Your task to perform on an android device: add a contact in the contacts app Image 0: 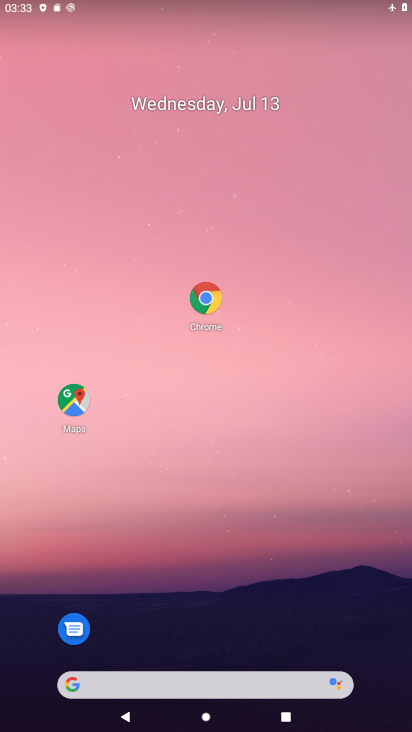
Step 0: drag from (125, 321) to (121, 206)
Your task to perform on an android device: add a contact in the contacts app Image 1: 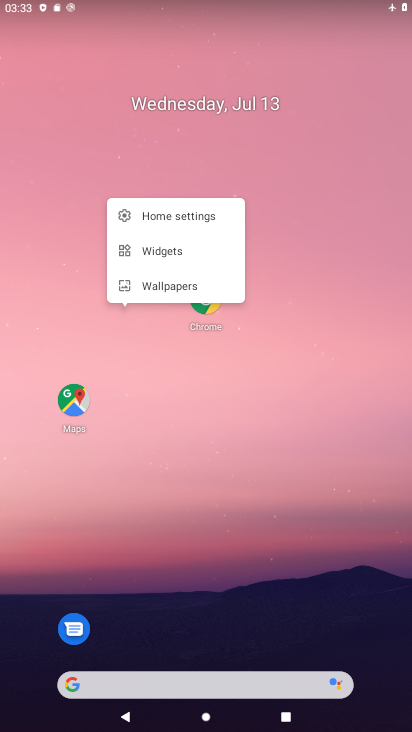
Step 1: click (196, 247)
Your task to perform on an android device: add a contact in the contacts app Image 2: 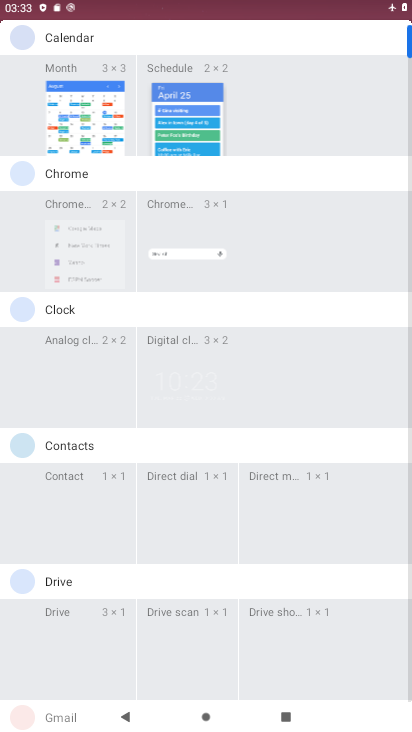
Step 2: drag from (288, 655) to (255, 273)
Your task to perform on an android device: add a contact in the contacts app Image 3: 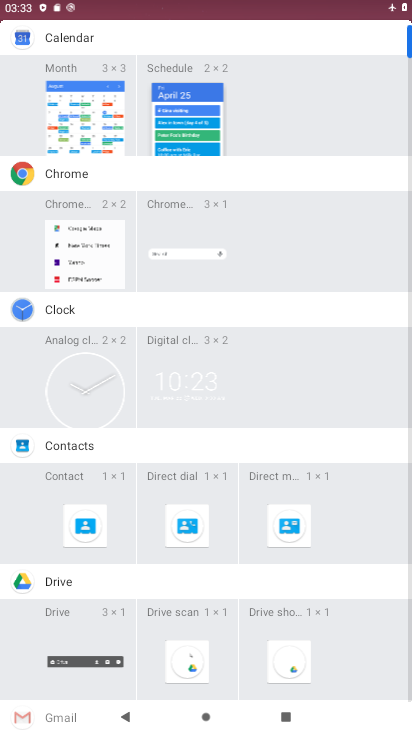
Step 3: press home button
Your task to perform on an android device: add a contact in the contacts app Image 4: 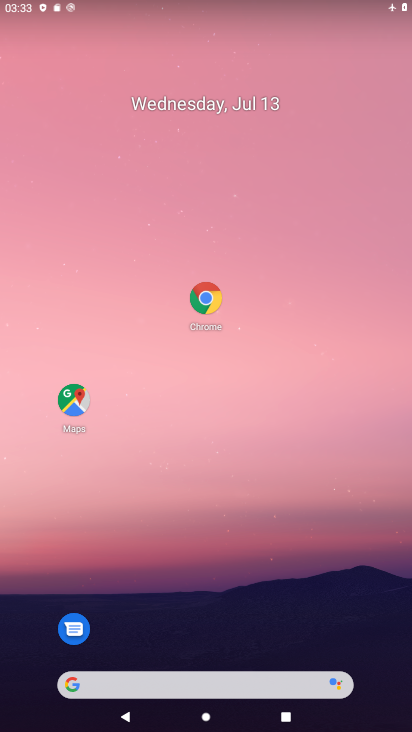
Step 4: drag from (242, 642) to (235, 223)
Your task to perform on an android device: add a contact in the contacts app Image 5: 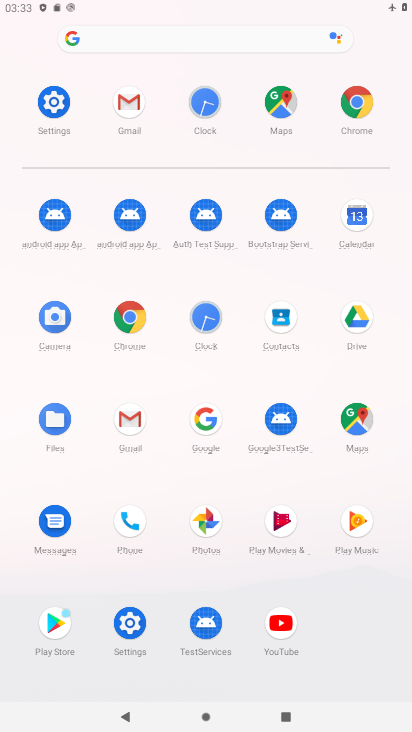
Step 5: click (141, 517)
Your task to perform on an android device: add a contact in the contacts app Image 6: 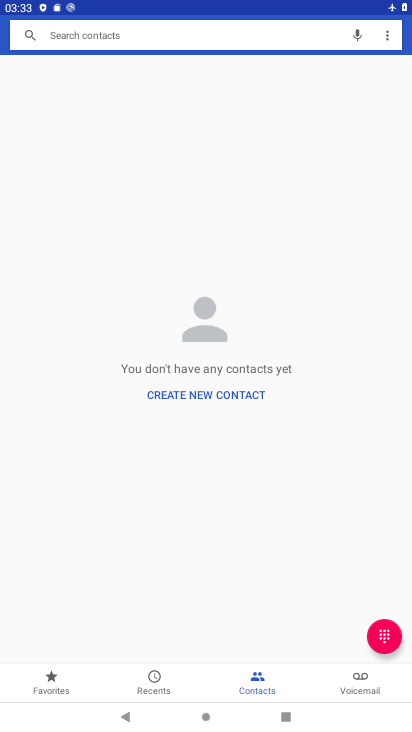
Step 6: click (222, 386)
Your task to perform on an android device: add a contact in the contacts app Image 7: 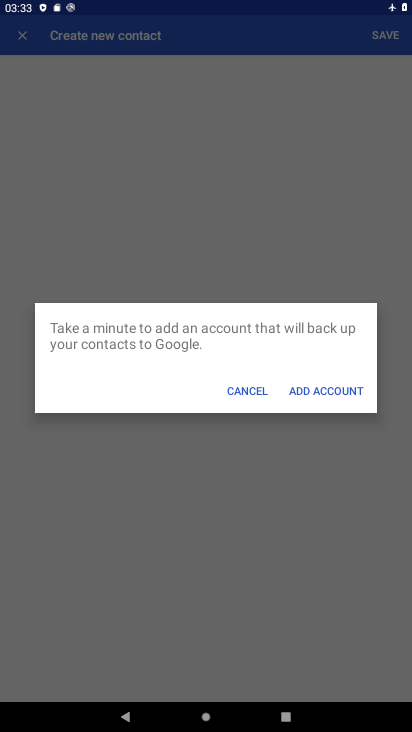
Step 7: click (306, 384)
Your task to perform on an android device: add a contact in the contacts app Image 8: 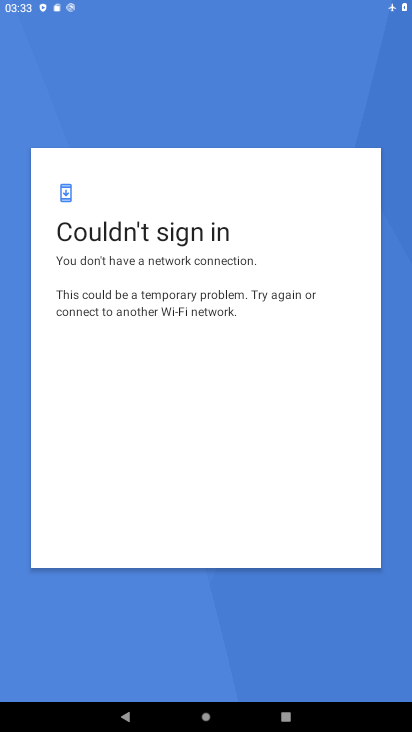
Step 8: task complete